Your task to perform on an android device: Empty the shopping cart on ebay.com. Image 0: 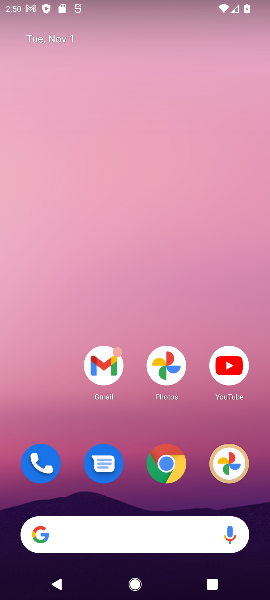
Step 0: drag from (140, 426) to (240, 129)
Your task to perform on an android device: Empty the shopping cart on ebay.com. Image 1: 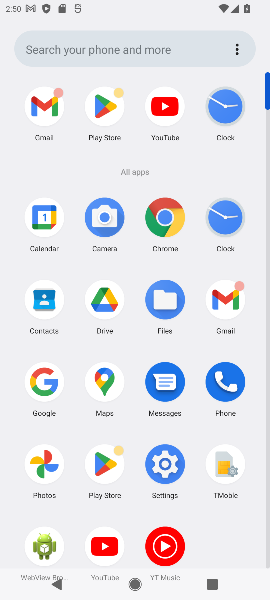
Step 1: click (161, 216)
Your task to perform on an android device: Empty the shopping cart on ebay.com. Image 2: 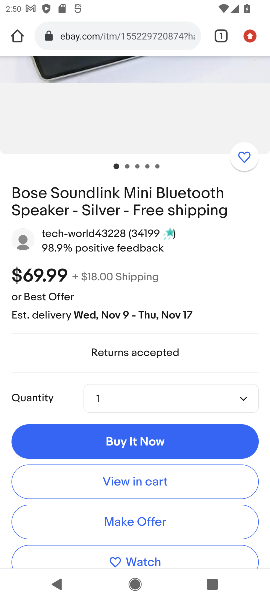
Step 2: drag from (206, 113) to (176, 496)
Your task to perform on an android device: Empty the shopping cart on ebay.com. Image 3: 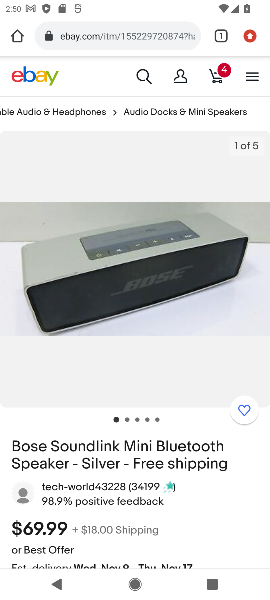
Step 3: click (218, 80)
Your task to perform on an android device: Empty the shopping cart on ebay.com. Image 4: 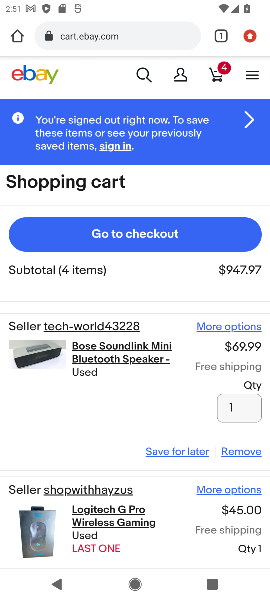
Step 4: click (246, 450)
Your task to perform on an android device: Empty the shopping cart on ebay.com. Image 5: 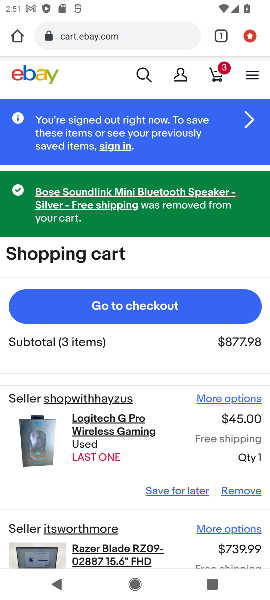
Step 5: click (249, 489)
Your task to perform on an android device: Empty the shopping cart on ebay.com. Image 6: 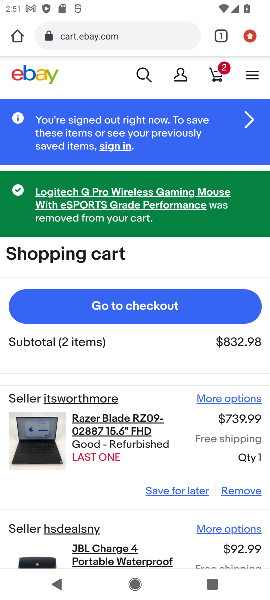
Step 6: click (253, 491)
Your task to perform on an android device: Empty the shopping cart on ebay.com. Image 7: 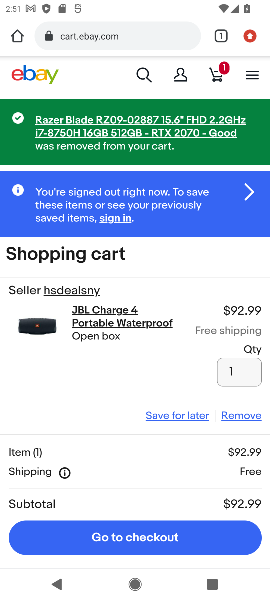
Step 7: click (247, 415)
Your task to perform on an android device: Empty the shopping cart on ebay.com. Image 8: 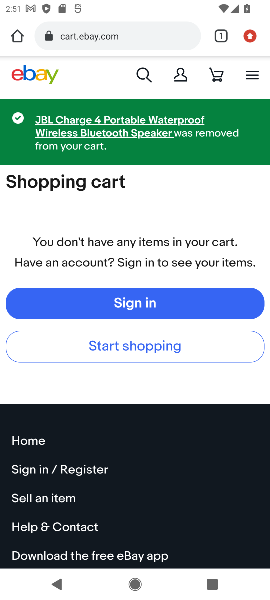
Step 8: task complete